Your task to perform on an android device: Open Google Chrome and open the bookmarks view Image 0: 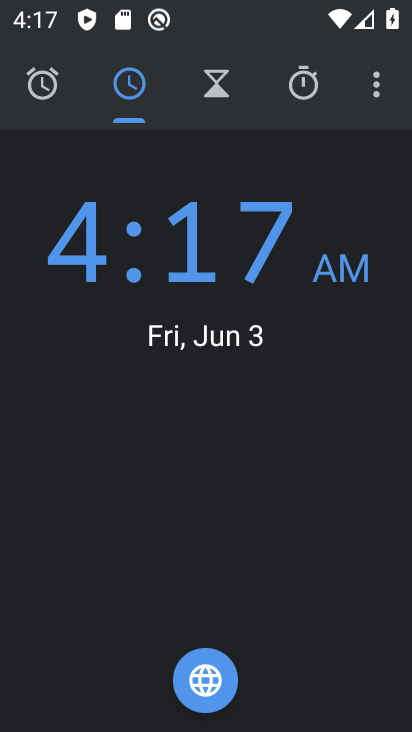
Step 0: press home button
Your task to perform on an android device: Open Google Chrome and open the bookmarks view Image 1: 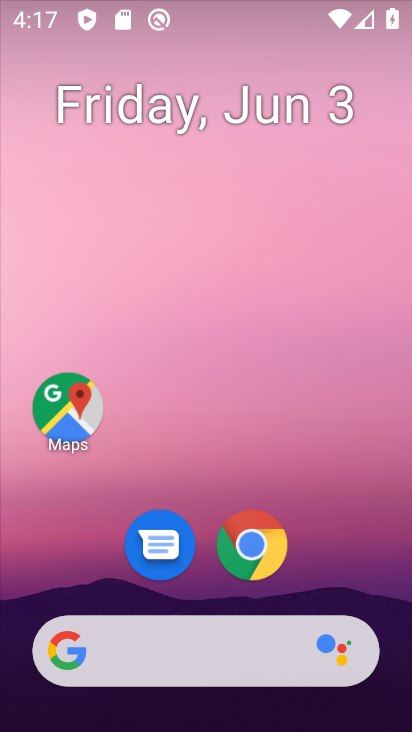
Step 1: click (251, 557)
Your task to perform on an android device: Open Google Chrome and open the bookmarks view Image 2: 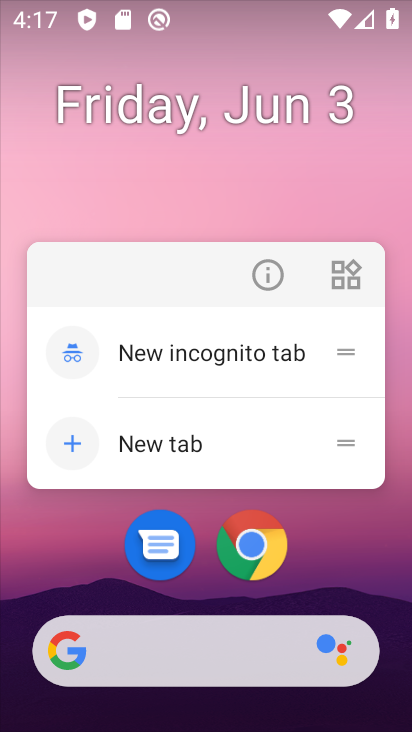
Step 2: click (255, 551)
Your task to perform on an android device: Open Google Chrome and open the bookmarks view Image 3: 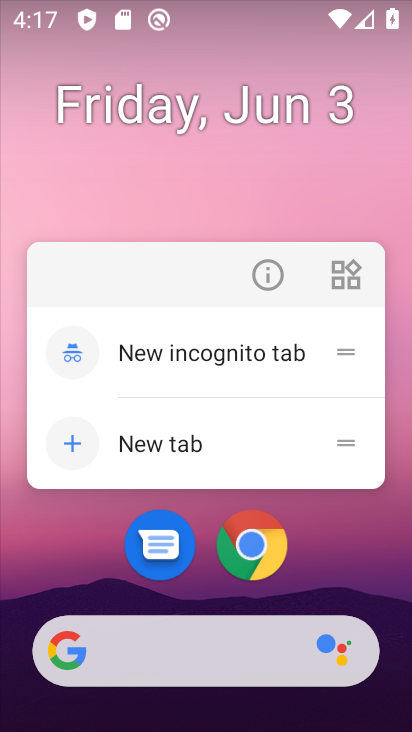
Step 3: click (255, 551)
Your task to perform on an android device: Open Google Chrome and open the bookmarks view Image 4: 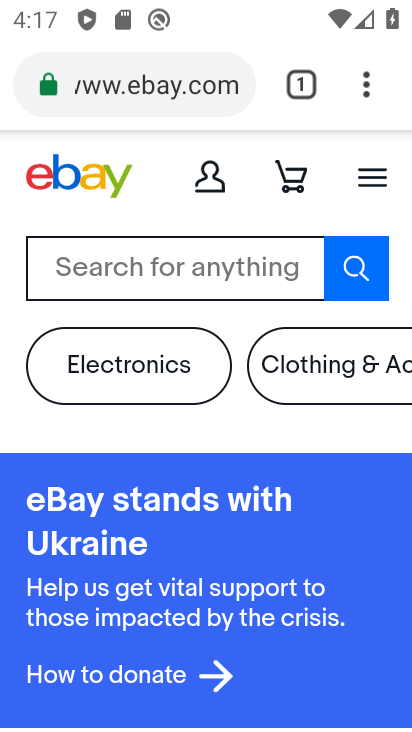
Step 4: task complete